Your task to perform on an android device: open chrome and create a bookmark for the current page Image 0: 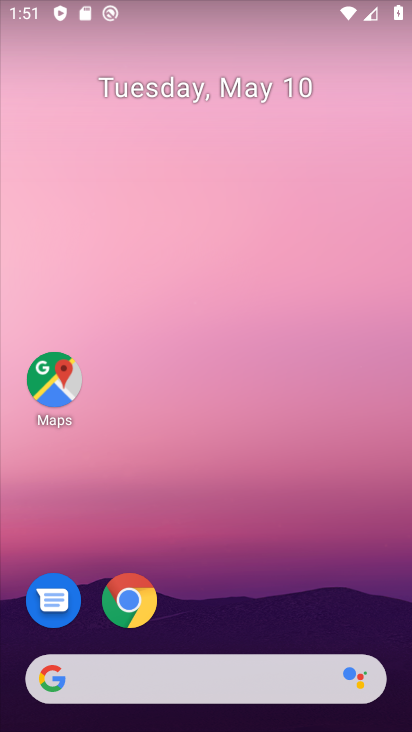
Step 0: click (149, 610)
Your task to perform on an android device: open chrome and create a bookmark for the current page Image 1: 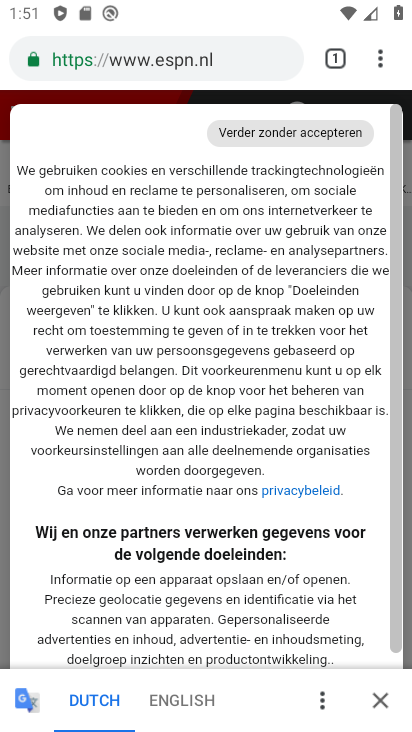
Step 1: click (341, 61)
Your task to perform on an android device: open chrome and create a bookmark for the current page Image 2: 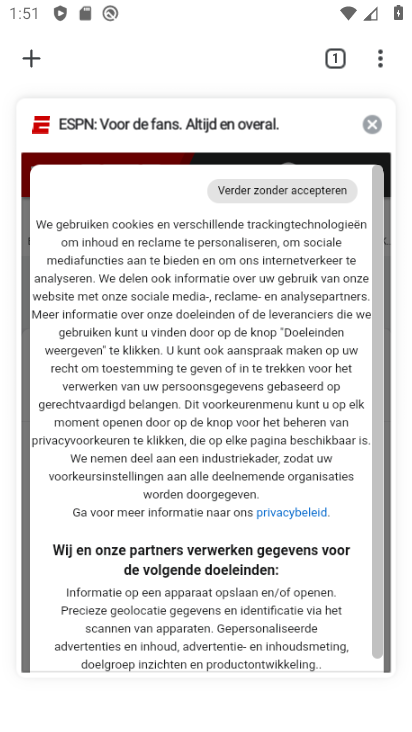
Step 2: click (297, 297)
Your task to perform on an android device: open chrome and create a bookmark for the current page Image 3: 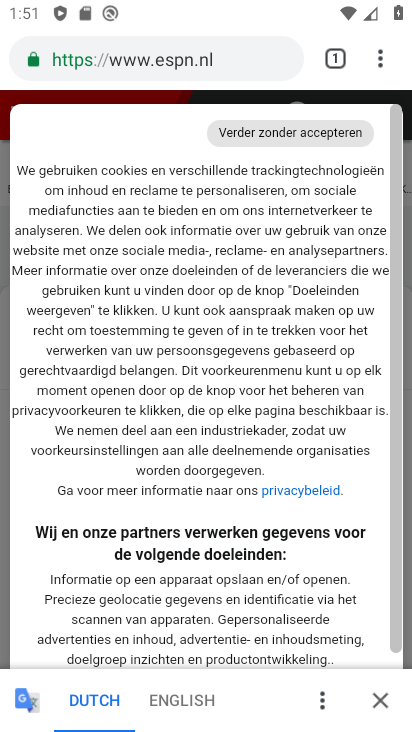
Step 3: click (379, 66)
Your task to perform on an android device: open chrome and create a bookmark for the current page Image 4: 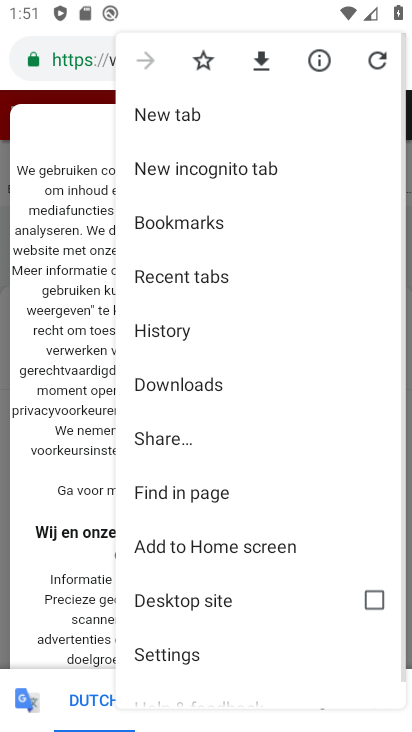
Step 4: click (206, 60)
Your task to perform on an android device: open chrome and create a bookmark for the current page Image 5: 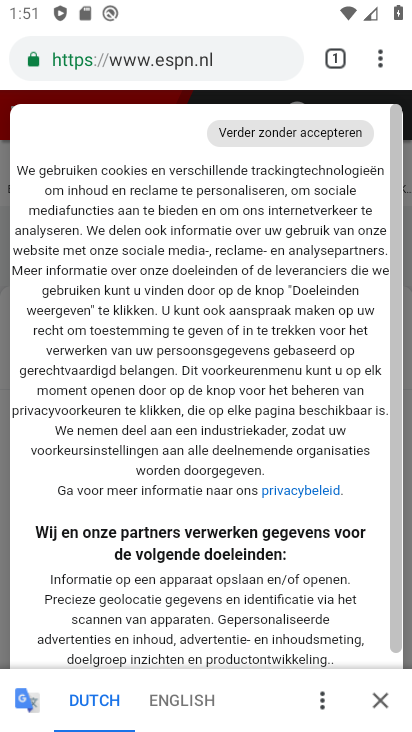
Step 5: task complete